Your task to perform on an android device: turn off airplane mode Image 0: 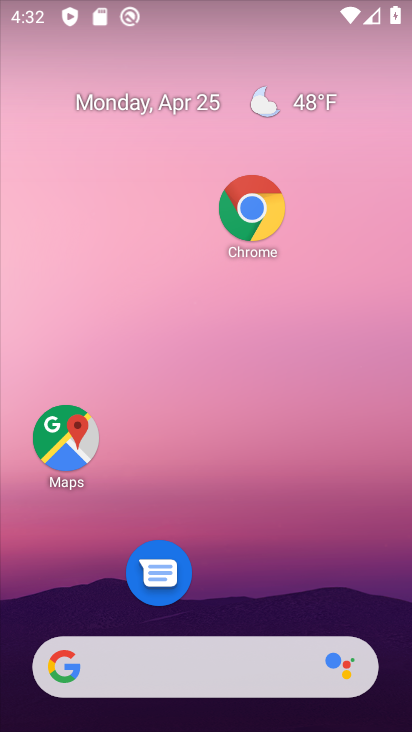
Step 0: drag from (235, 587) to (198, 110)
Your task to perform on an android device: turn off airplane mode Image 1: 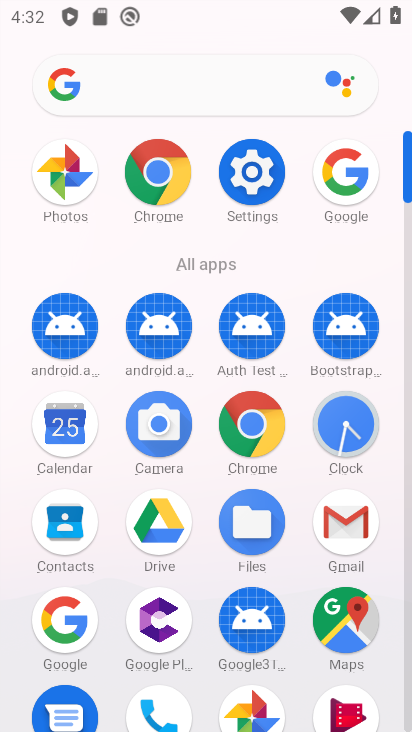
Step 1: click (246, 154)
Your task to perform on an android device: turn off airplane mode Image 2: 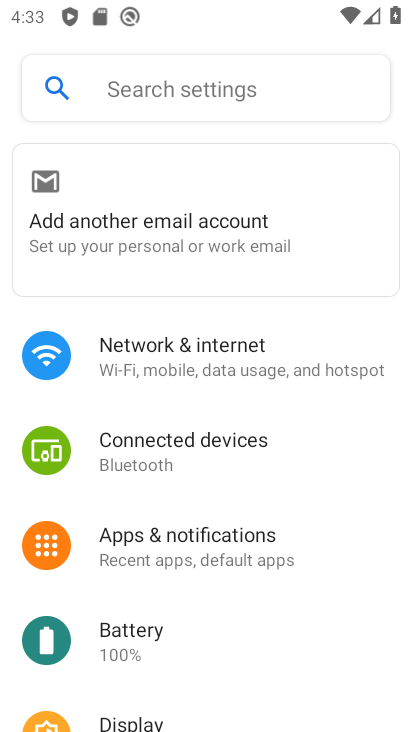
Step 2: click (151, 365)
Your task to perform on an android device: turn off airplane mode Image 3: 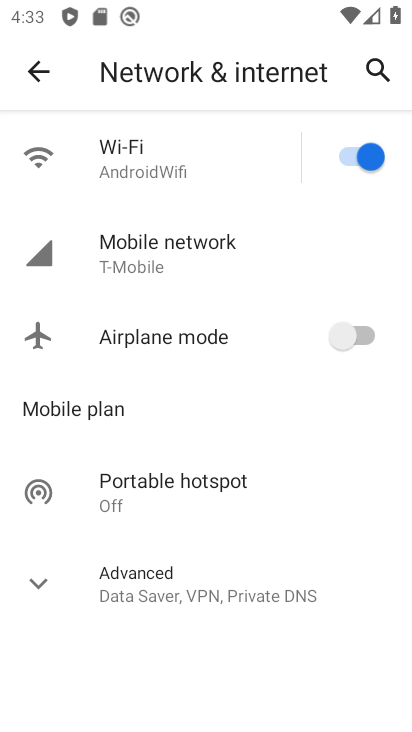
Step 3: task complete